Your task to perform on an android device: set the stopwatch Image 0: 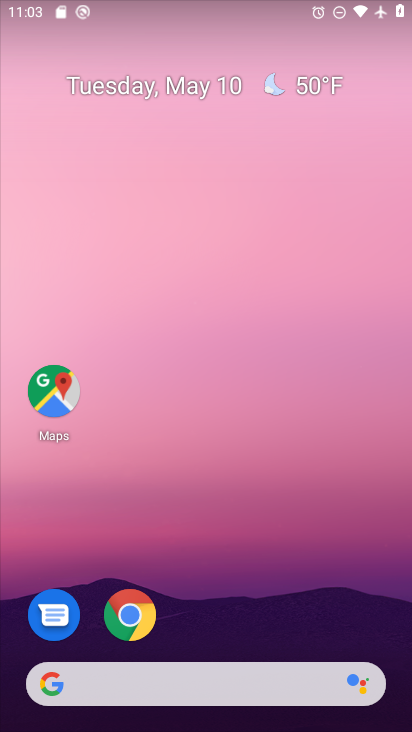
Step 0: drag from (369, 637) to (296, 127)
Your task to perform on an android device: set the stopwatch Image 1: 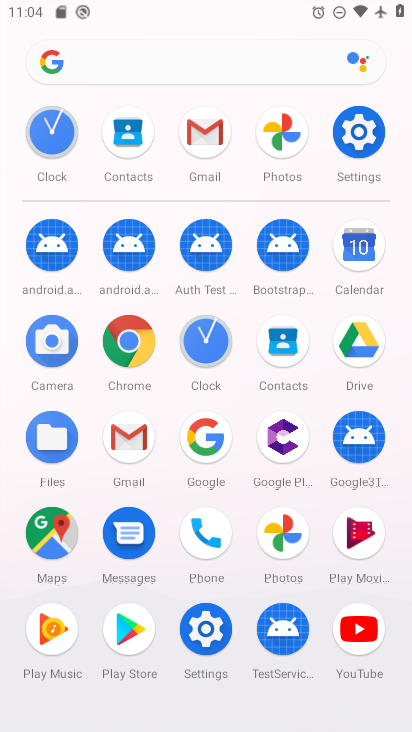
Step 1: click (199, 338)
Your task to perform on an android device: set the stopwatch Image 2: 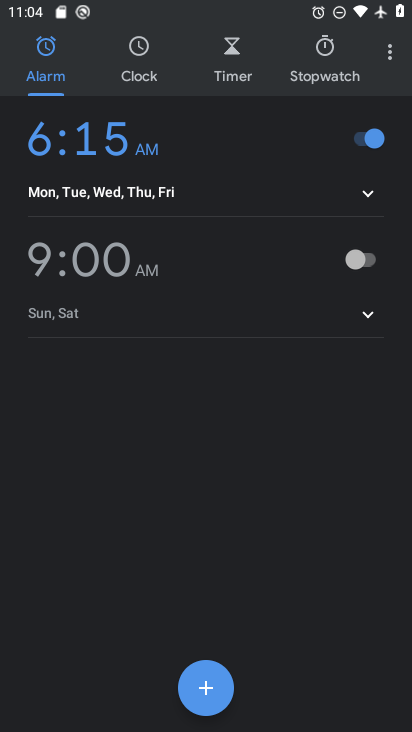
Step 2: click (326, 55)
Your task to perform on an android device: set the stopwatch Image 3: 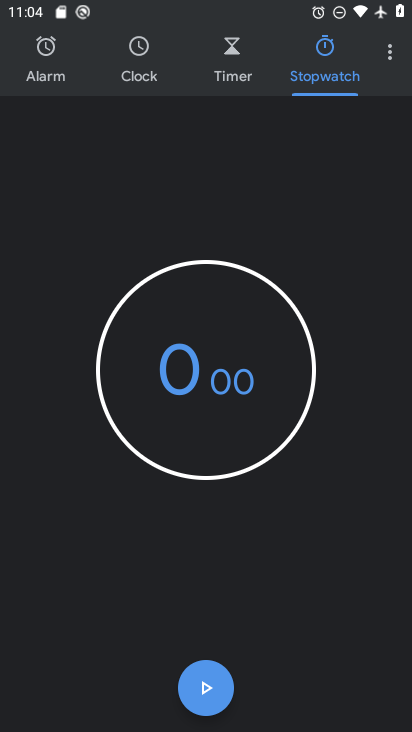
Step 3: task complete